Your task to perform on an android device: Go to Yahoo.com Image 0: 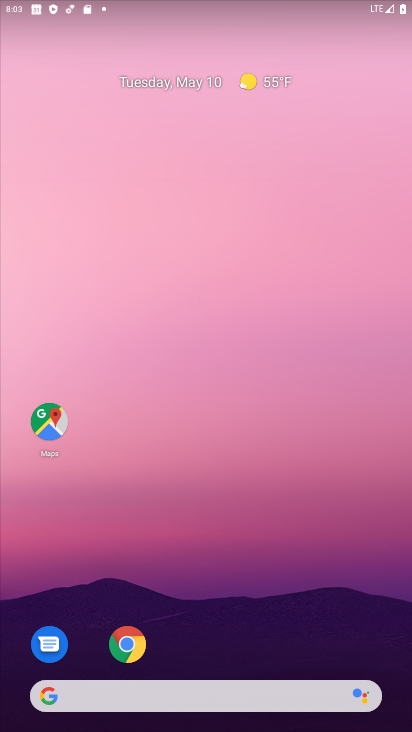
Step 0: drag from (239, 717) to (237, 193)
Your task to perform on an android device: Go to Yahoo.com Image 1: 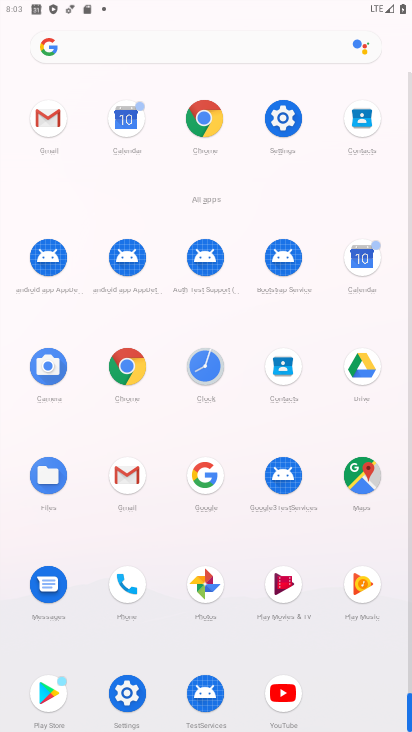
Step 1: click (214, 144)
Your task to perform on an android device: Go to Yahoo.com Image 2: 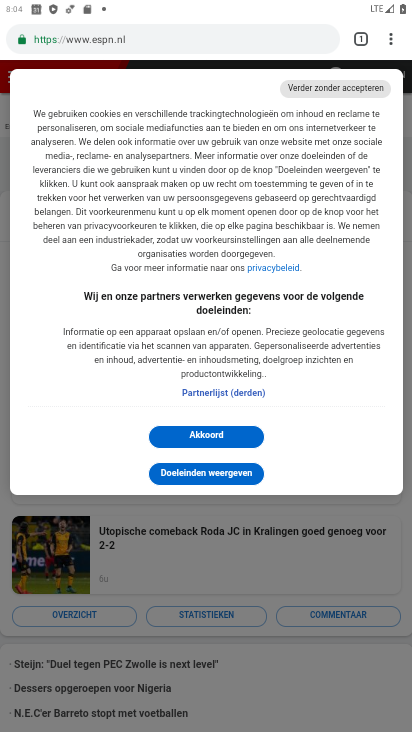
Step 2: click (281, 40)
Your task to perform on an android device: Go to Yahoo.com Image 3: 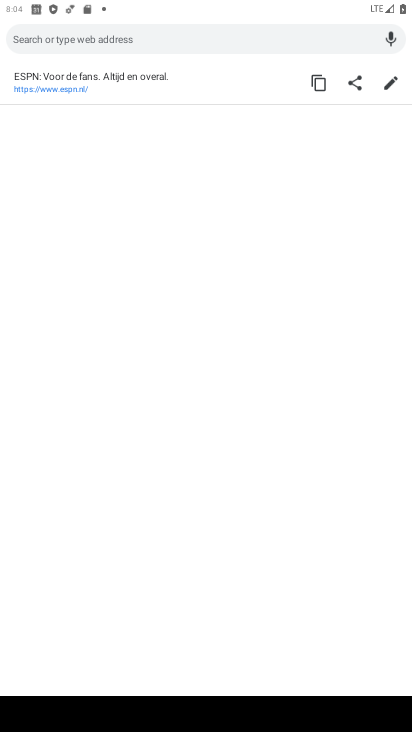
Step 3: type "yahoo.com"
Your task to perform on an android device: Go to Yahoo.com Image 4: 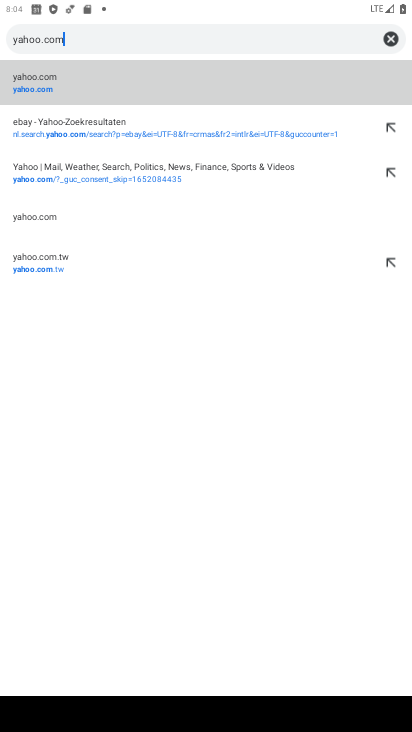
Step 4: click (269, 97)
Your task to perform on an android device: Go to Yahoo.com Image 5: 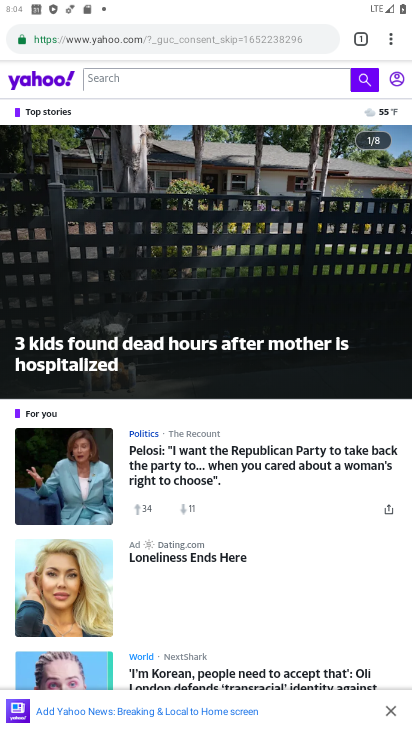
Step 5: task complete